Your task to perform on an android device: Search for vegetarian restaurants on Maps Image 0: 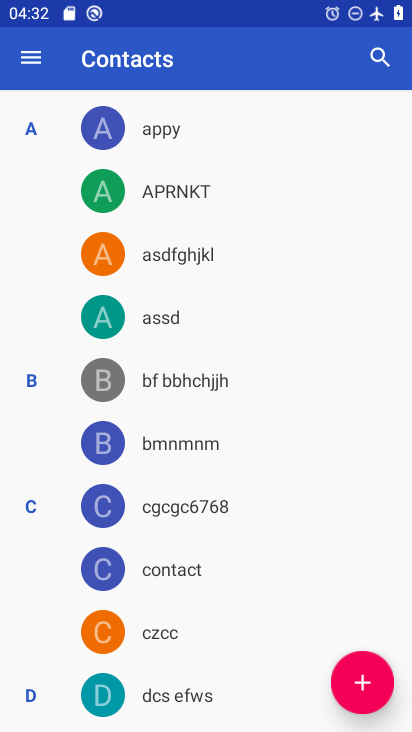
Step 0: press home button
Your task to perform on an android device: Search for vegetarian restaurants on Maps Image 1: 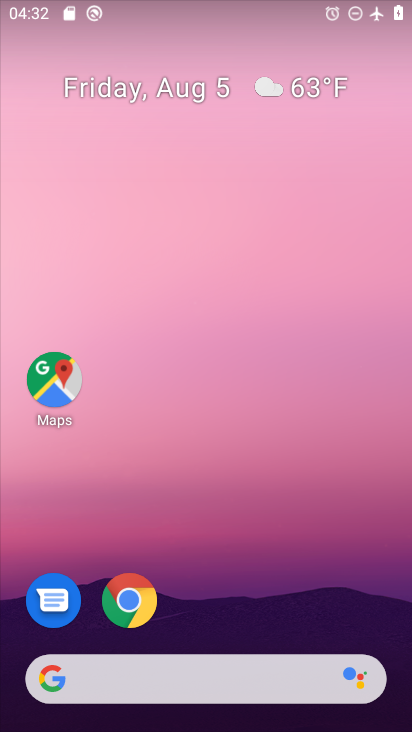
Step 1: click (57, 379)
Your task to perform on an android device: Search for vegetarian restaurants on Maps Image 2: 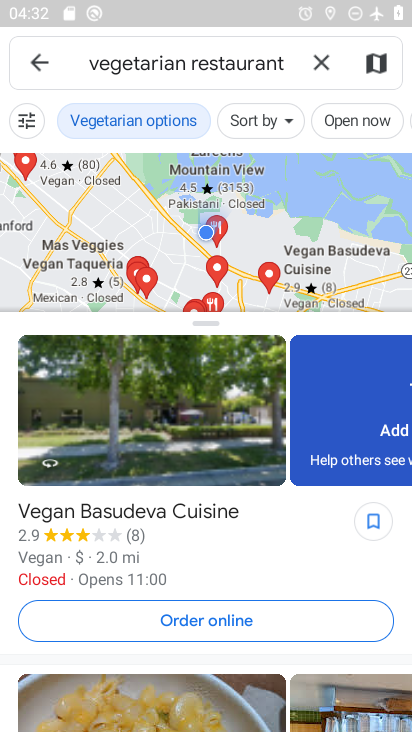
Step 2: task complete